Your task to perform on an android device: Go to internet settings Image 0: 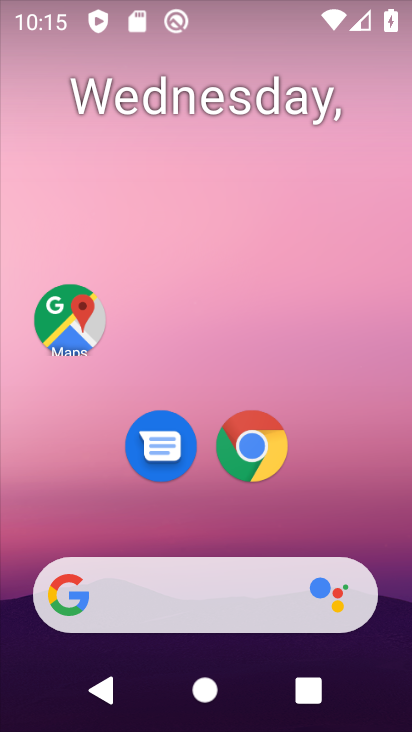
Step 0: drag from (332, 513) to (334, 84)
Your task to perform on an android device: Go to internet settings Image 1: 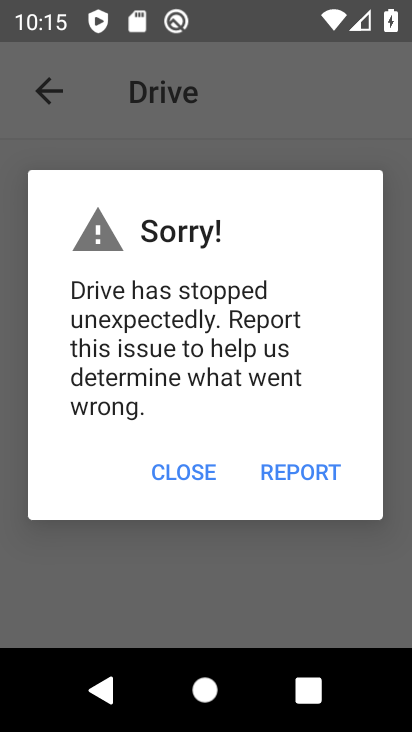
Step 1: press home button
Your task to perform on an android device: Go to internet settings Image 2: 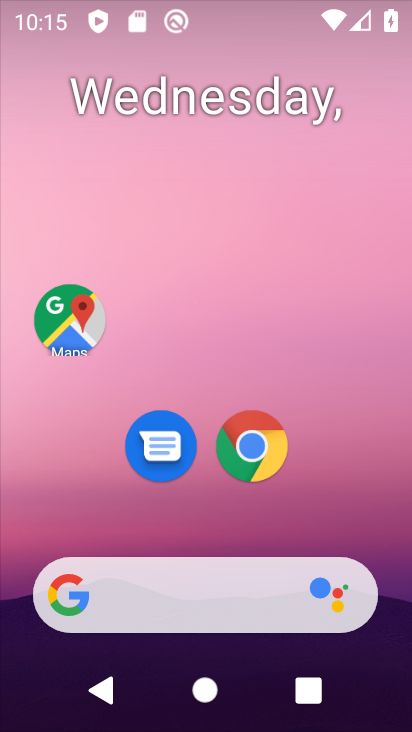
Step 2: drag from (344, 511) to (346, 116)
Your task to perform on an android device: Go to internet settings Image 3: 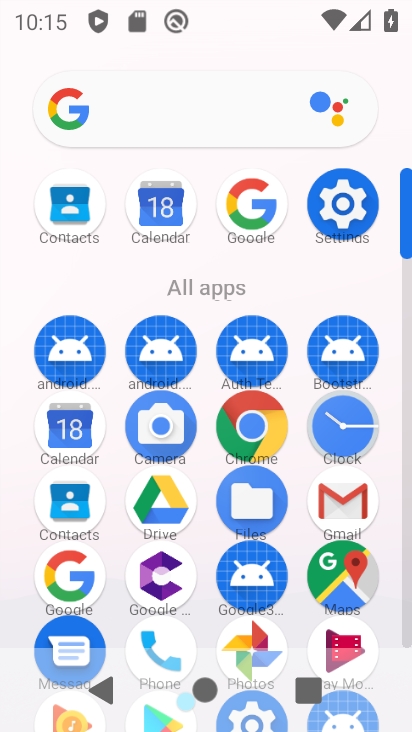
Step 3: click (347, 209)
Your task to perform on an android device: Go to internet settings Image 4: 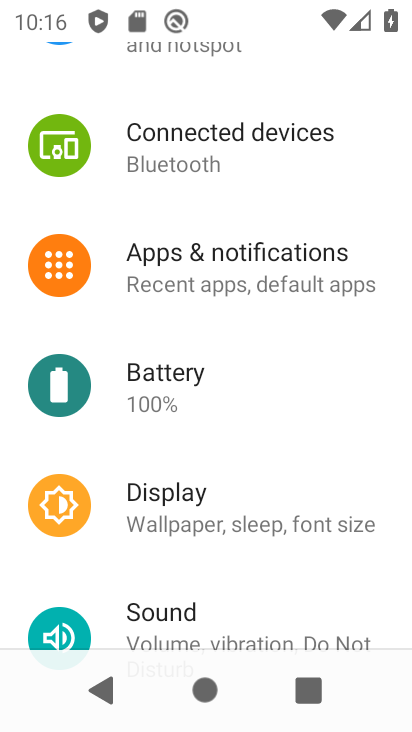
Step 4: drag from (312, 167) to (291, 479)
Your task to perform on an android device: Go to internet settings Image 5: 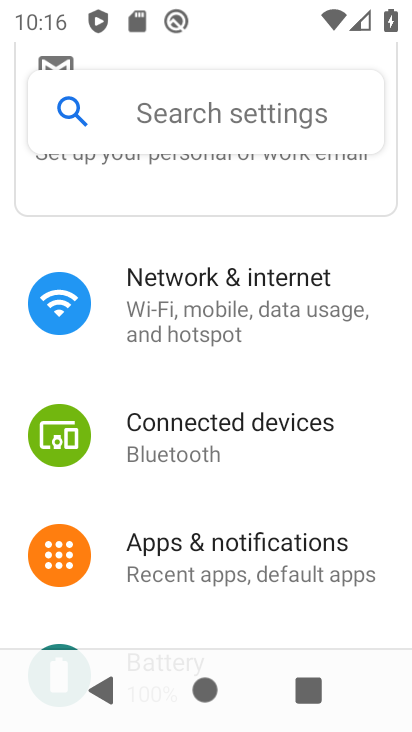
Step 5: click (276, 321)
Your task to perform on an android device: Go to internet settings Image 6: 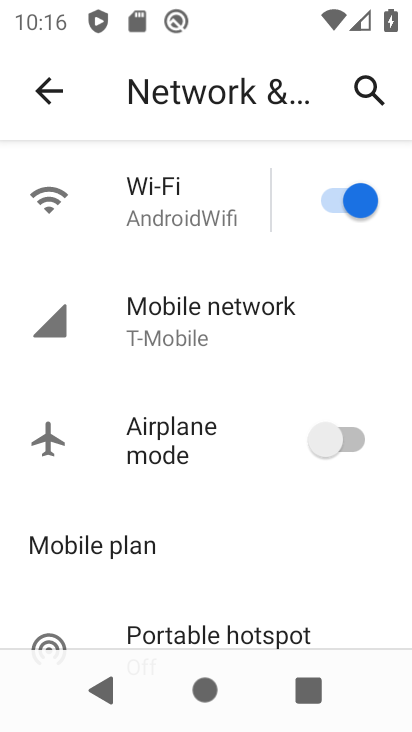
Step 6: task complete